Your task to perform on an android device: Play the last video I watched on Youtube Image 0: 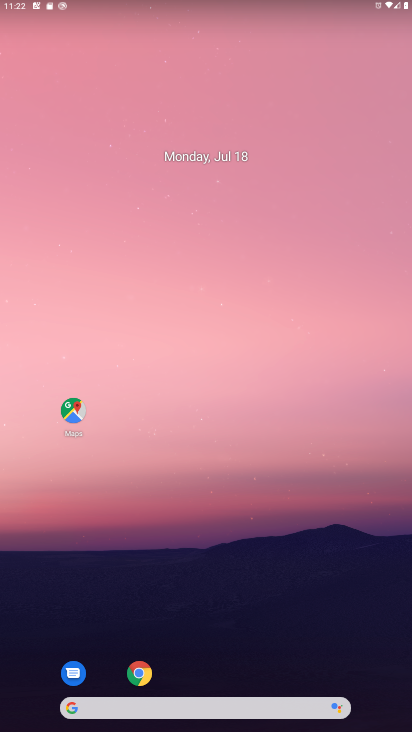
Step 0: drag from (229, 661) to (233, 99)
Your task to perform on an android device: Play the last video I watched on Youtube Image 1: 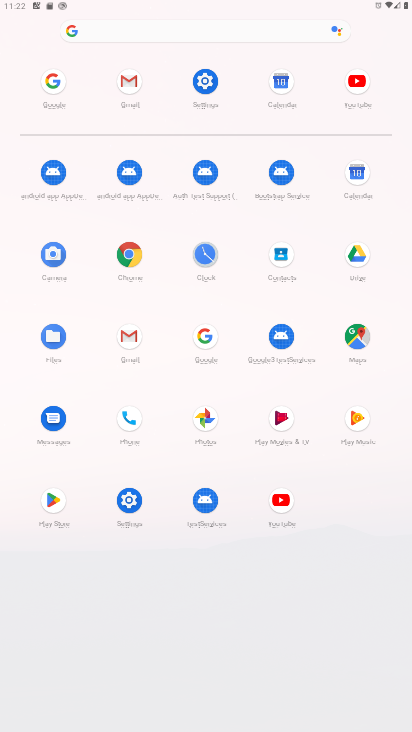
Step 1: click (343, 82)
Your task to perform on an android device: Play the last video I watched on Youtube Image 2: 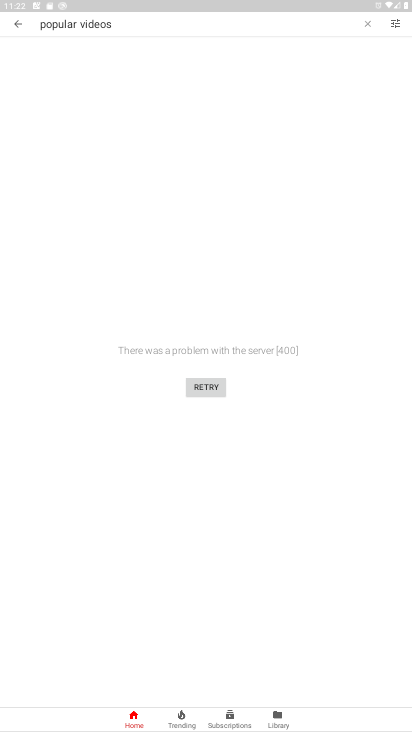
Step 2: click (392, 23)
Your task to perform on an android device: Play the last video I watched on Youtube Image 3: 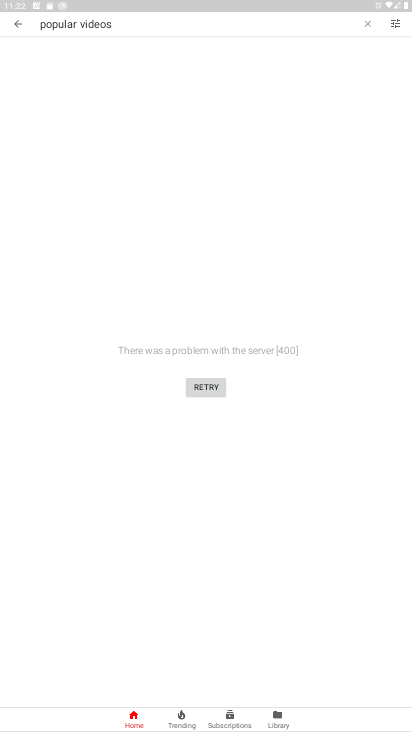
Step 3: click (397, 27)
Your task to perform on an android device: Play the last video I watched on Youtube Image 4: 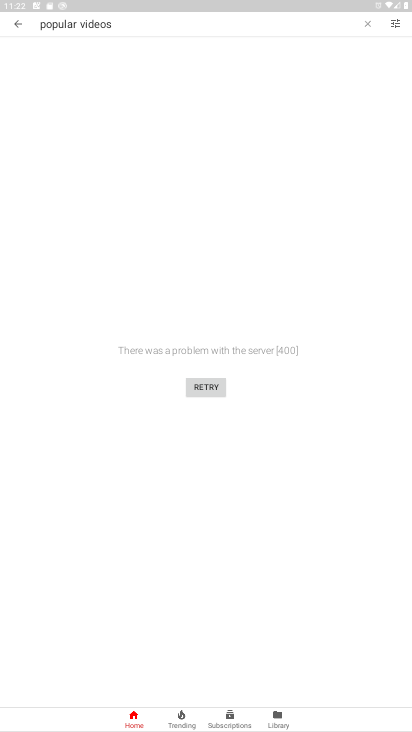
Step 4: click (277, 712)
Your task to perform on an android device: Play the last video I watched on Youtube Image 5: 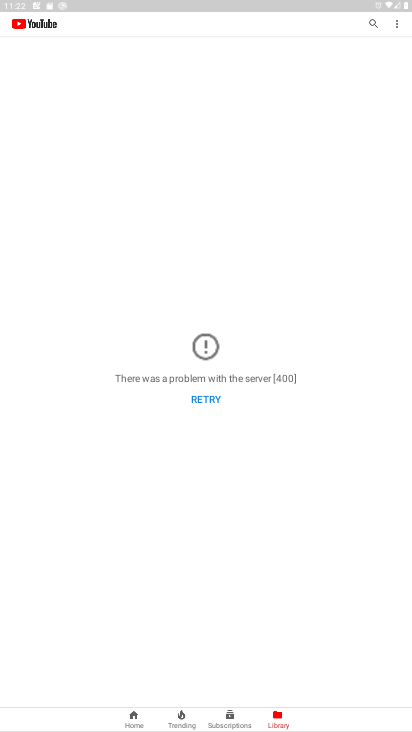
Step 5: click (397, 22)
Your task to perform on an android device: Play the last video I watched on Youtube Image 6: 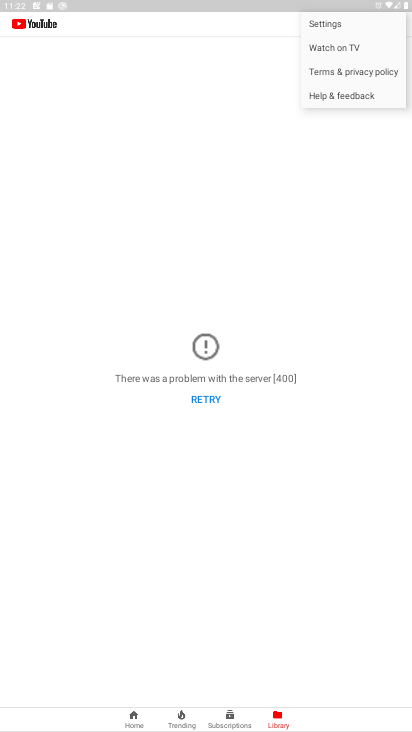
Step 6: click (359, 234)
Your task to perform on an android device: Play the last video I watched on Youtube Image 7: 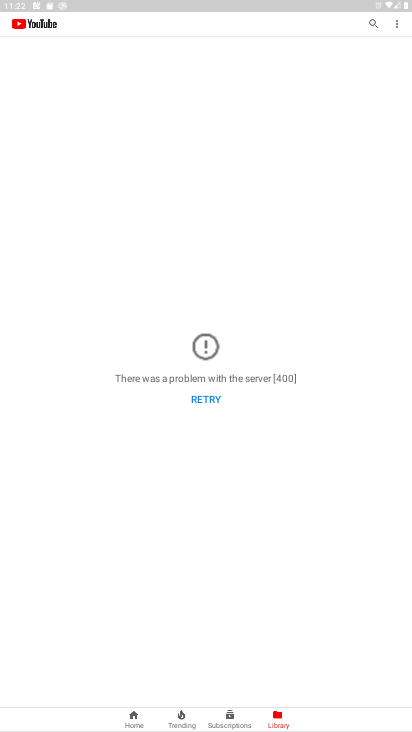
Step 7: click (283, 707)
Your task to perform on an android device: Play the last video I watched on Youtube Image 8: 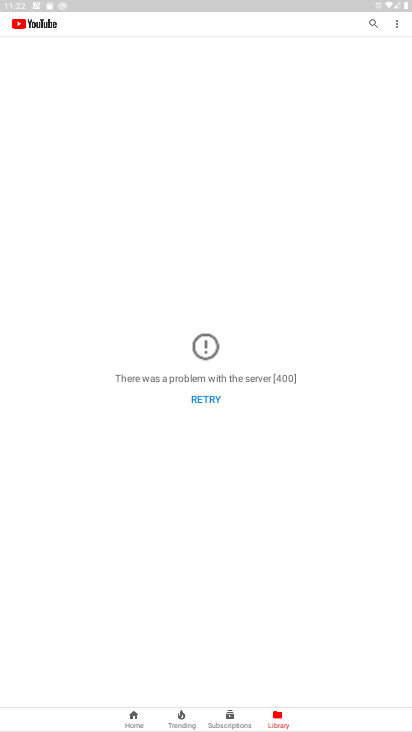
Step 8: click (391, 28)
Your task to perform on an android device: Play the last video I watched on Youtube Image 9: 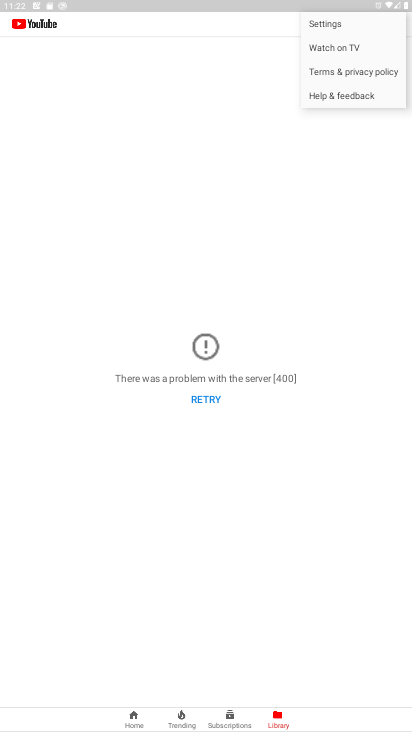
Step 9: click (333, 171)
Your task to perform on an android device: Play the last video I watched on Youtube Image 10: 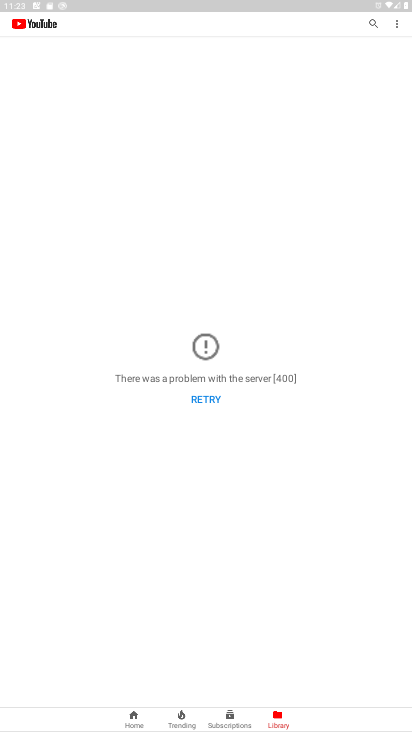
Step 10: task complete